Your task to perform on an android device: turn on the 12-hour format for clock Image 0: 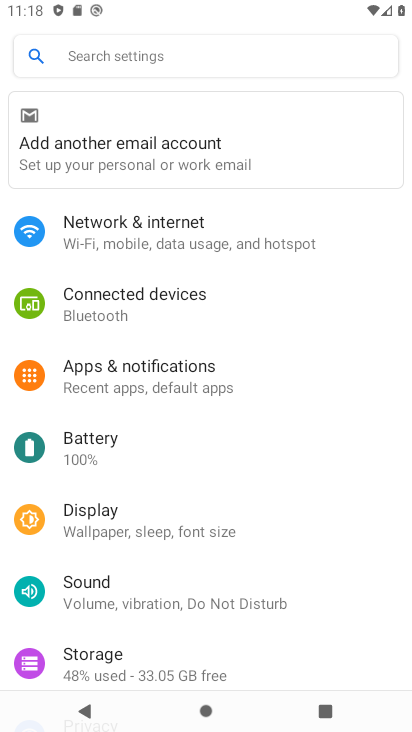
Step 0: press home button
Your task to perform on an android device: turn on the 12-hour format for clock Image 1: 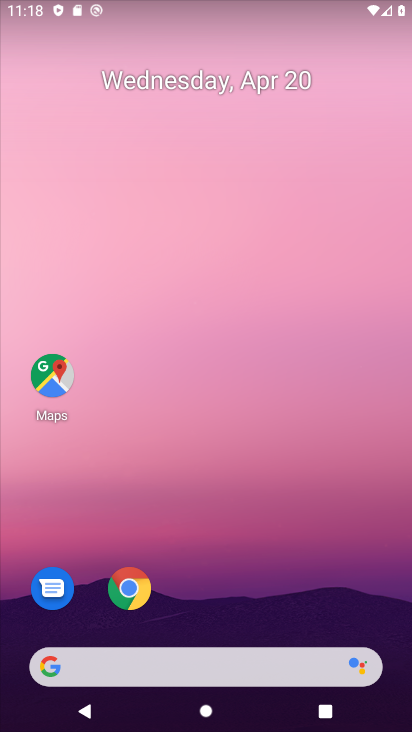
Step 1: drag from (243, 496) to (258, 151)
Your task to perform on an android device: turn on the 12-hour format for clock Image 2: 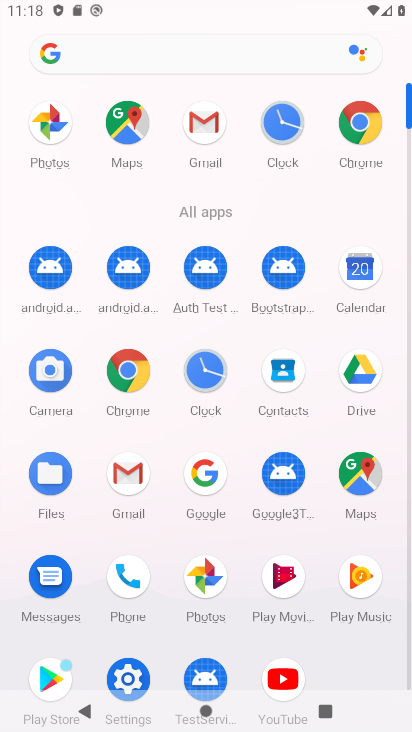
Step 2: click (207, 368)
Your task to perform on an android device: turn on the 12-hour format for clock Image 3: 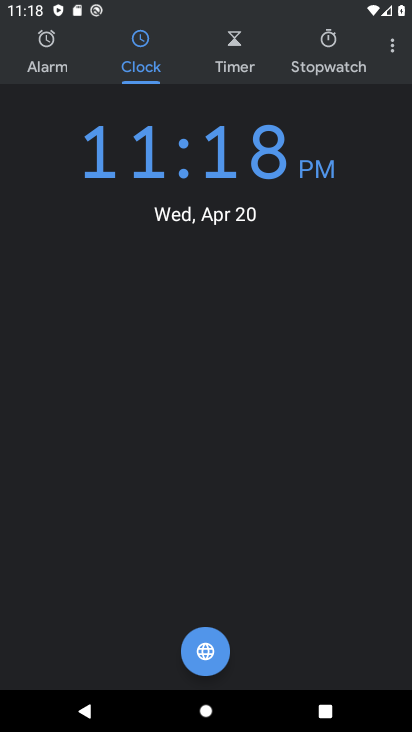
Step 3: click (393, 55)
Your task to perform on an android device: turn on the 12-hour format for clock Image 4: 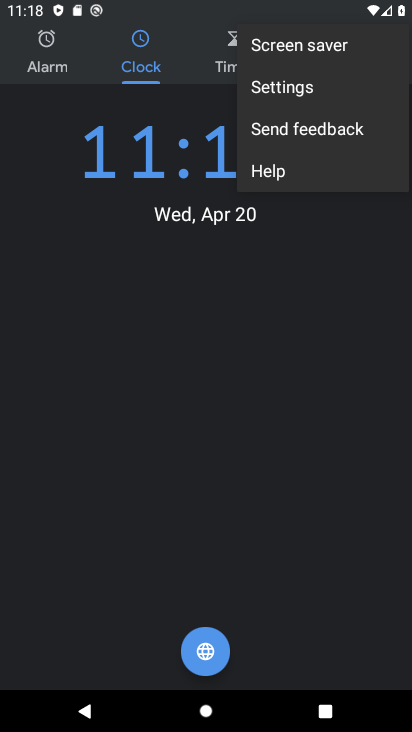
Step 4: click (282, 89)
Your task to perform on an android device: turn on the 12-hour format for clock Image 5: 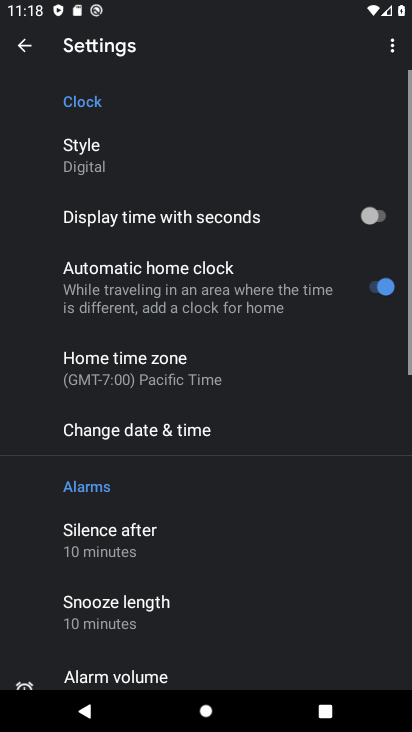
Step 5: drag from (234, 610) to (279, 193)
Your task to perform on an android device: turn on the 12-hour format for clock Image 6: 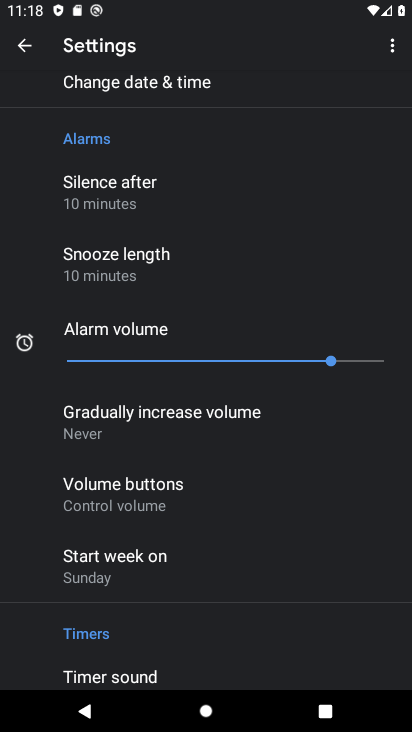
Step 6: drag from (183, 609) to (216, 331)
Your task to perform on an android device: turn on the 12-hour format for clock Image 7: 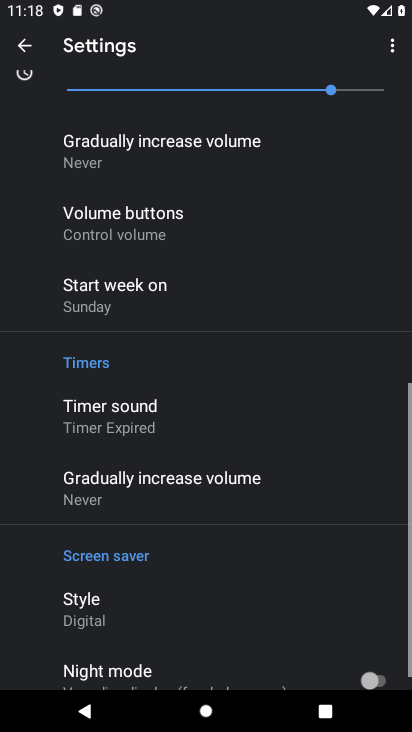
Step 7: drag from (198, 603) to (227, 706)
Your task to perform on an android device: turn on the 12-hour format for clock Image 8: 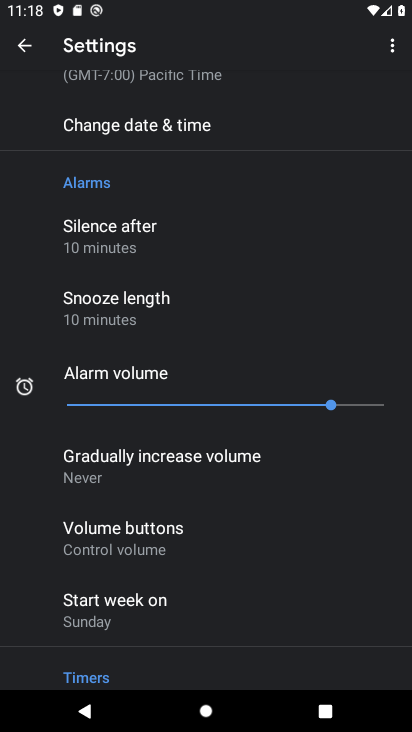
Step 8: click (200, 135)
Your task to perform on an android device: turn on the 12-hour format for clock Image 9: 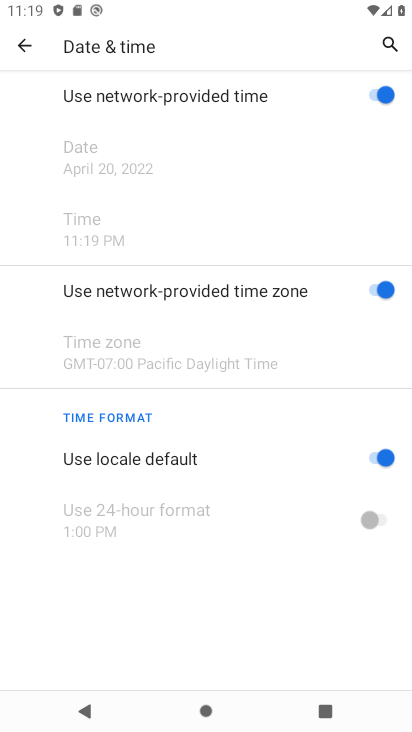
Step 9: task complete